Your task to perform on an android device: open app "Instagram" Image 0: 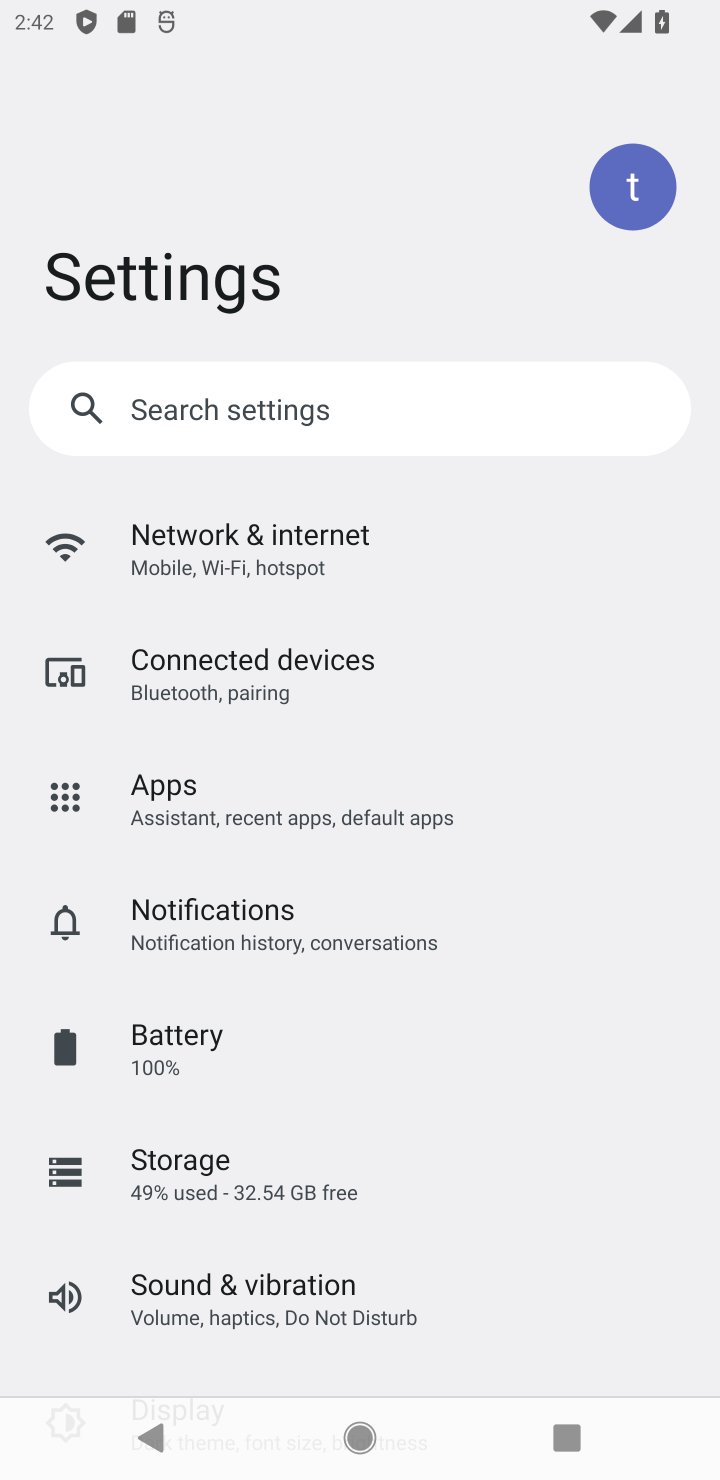
Step 0: press home button
Your task to perform on an android device: open app "Instagram" Image 1: 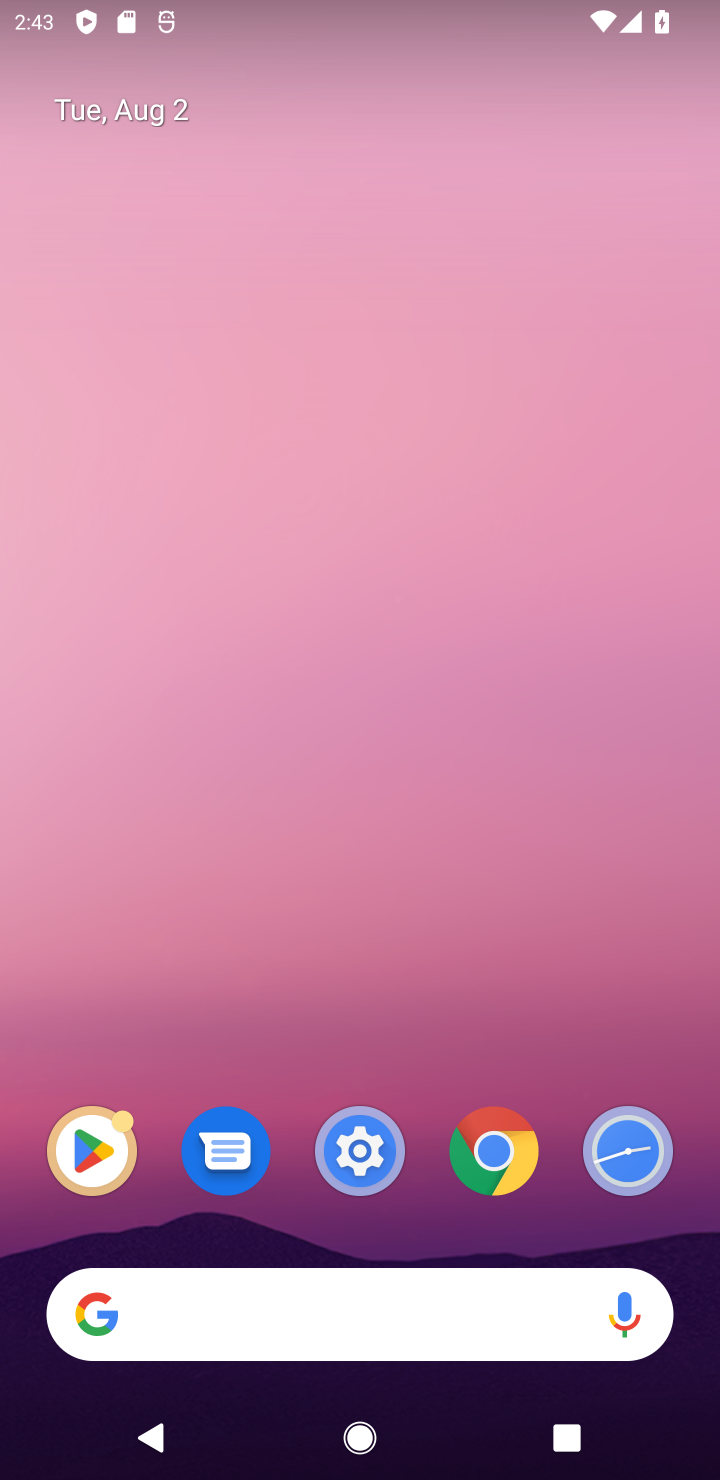
Step 1: drag from (417, 1455) to (325, 37)
Your task to perform on an android device: open app "Instagram" Image 2: 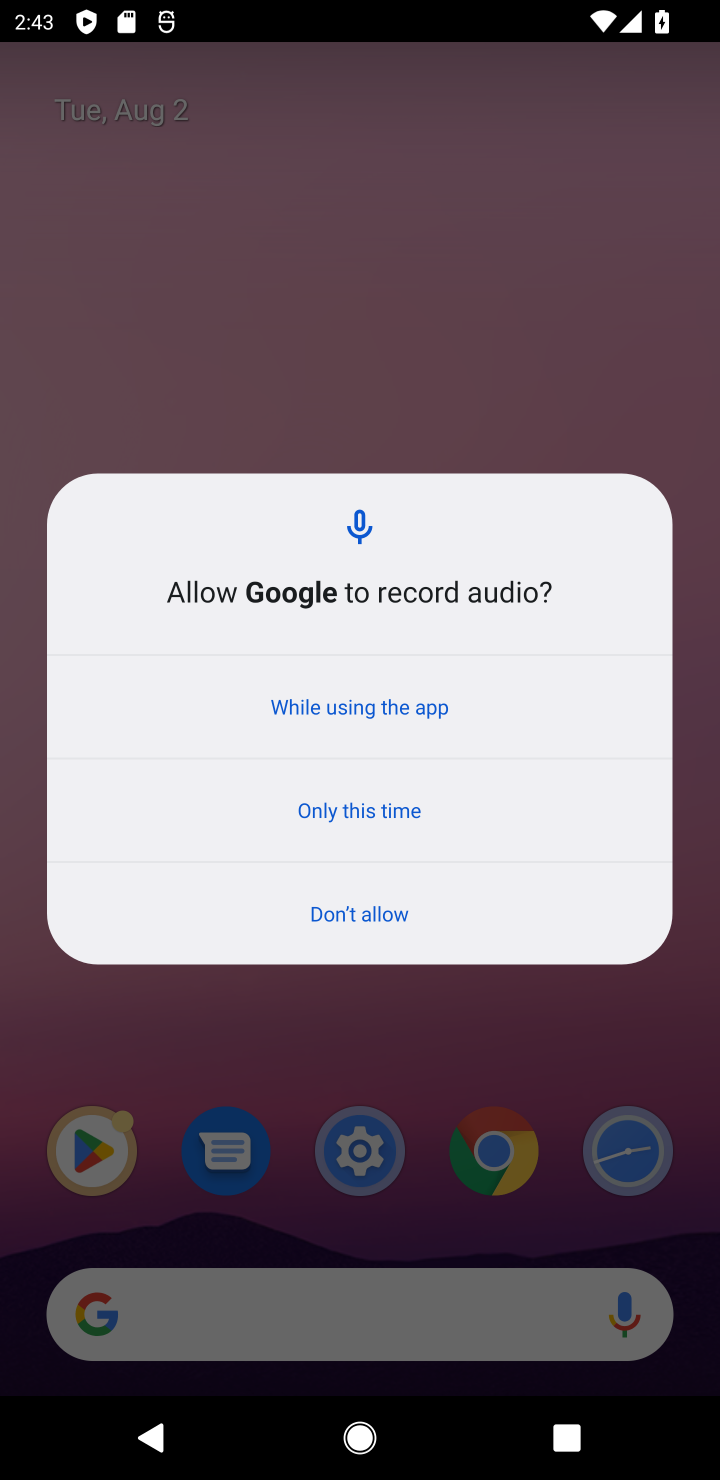
Step 2: click (535, 1059)
Your task to perform on an android device: open app "Instagram" Image 3: 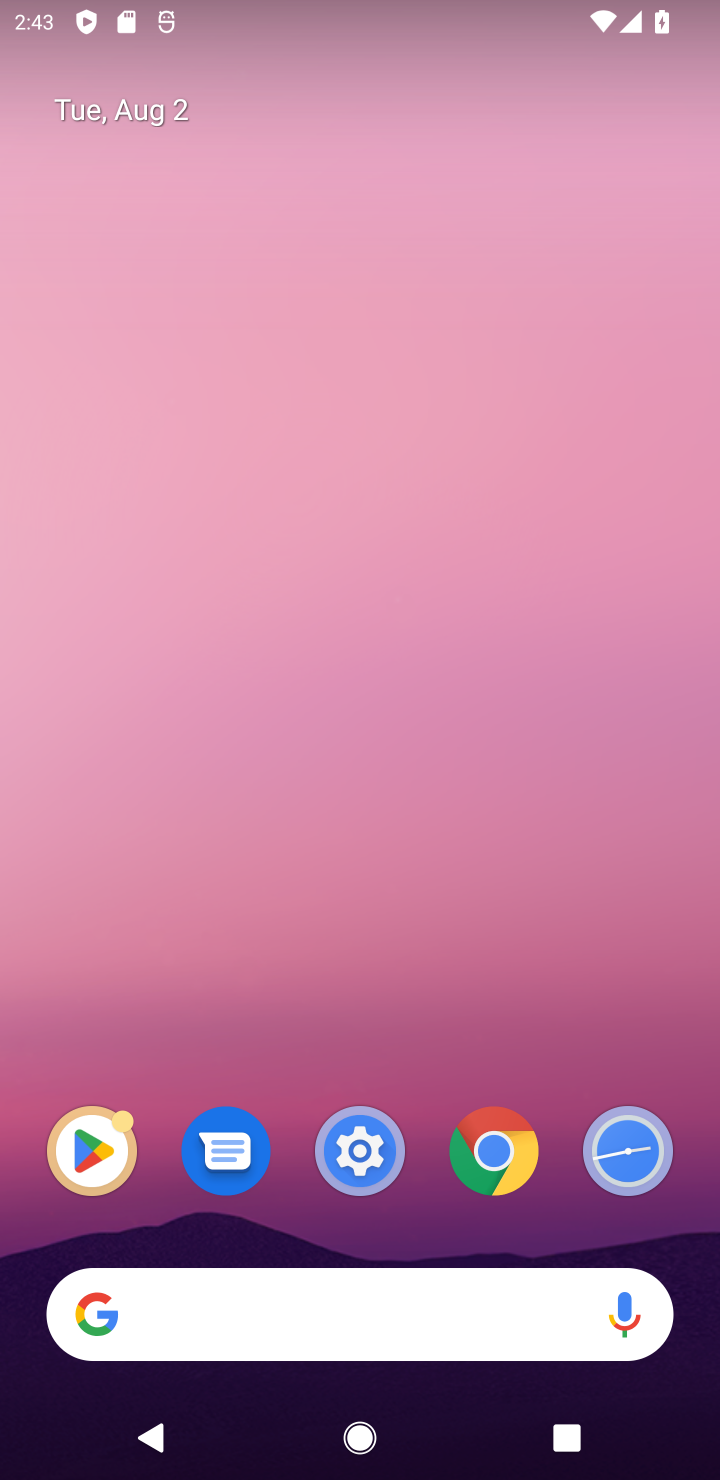
Step 3: drag from (426, 1181) to (431, 558)
Your task to perform on an android device: open app "Instagram" Image 4: 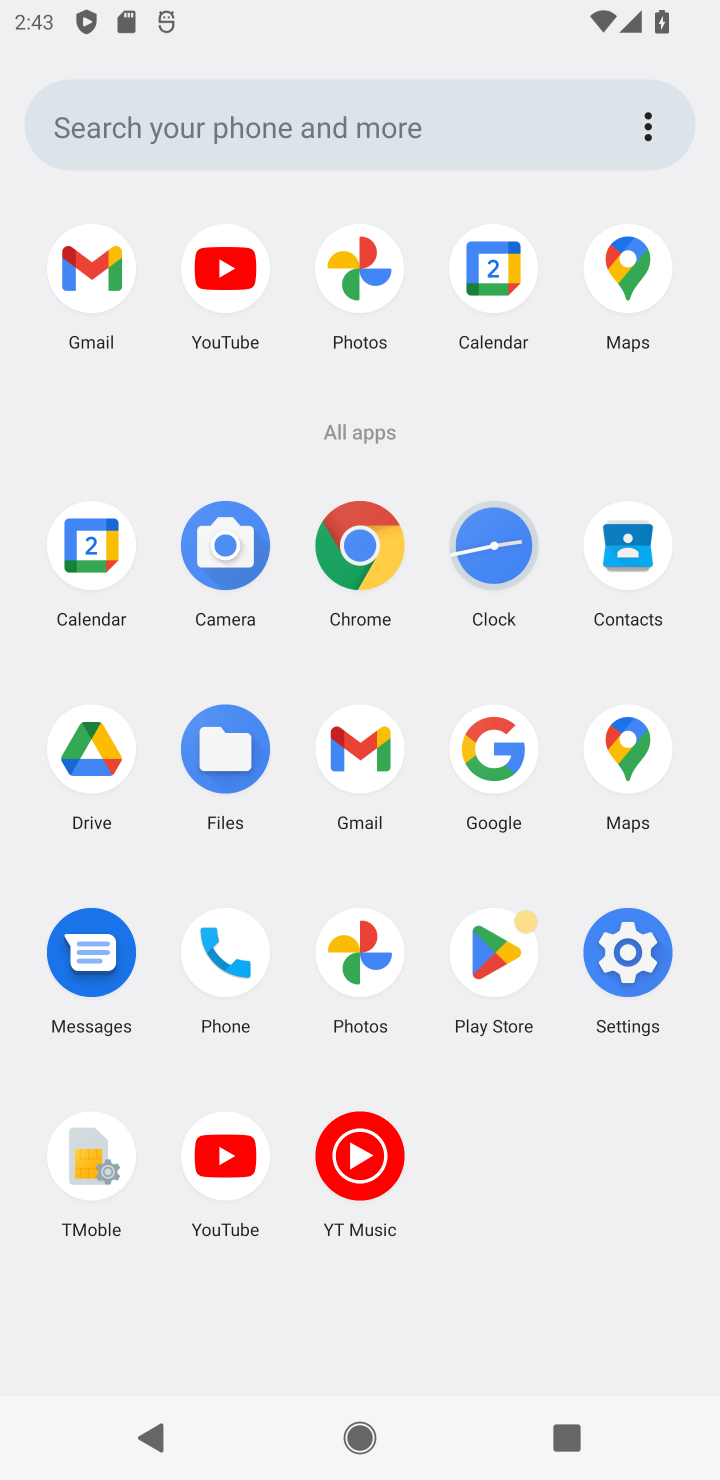
Step 4: click (496, 959)
Your task to perform on an android device: open app "Instagram" Image 5: 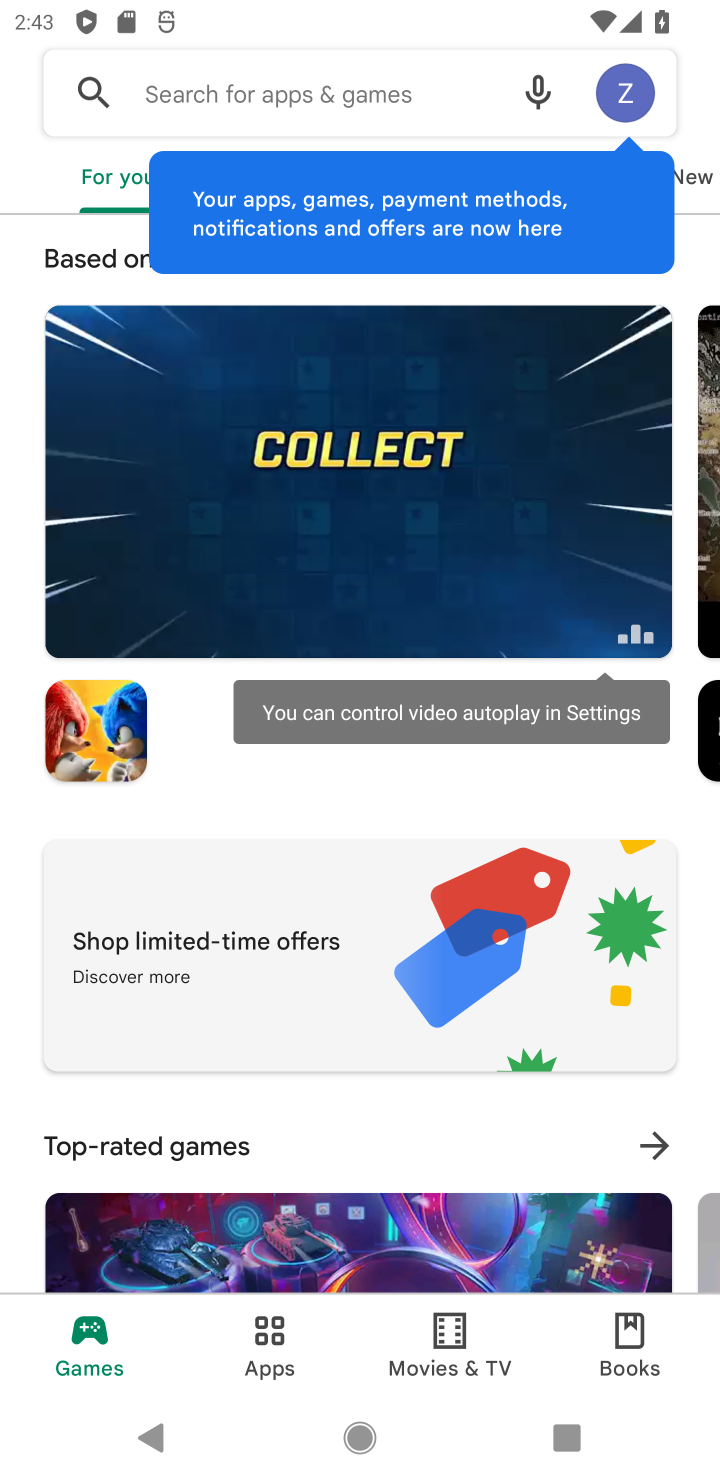
Step 5: click (284, 83)
Your task to perform on an android device: open app "Instagram" Image 6: 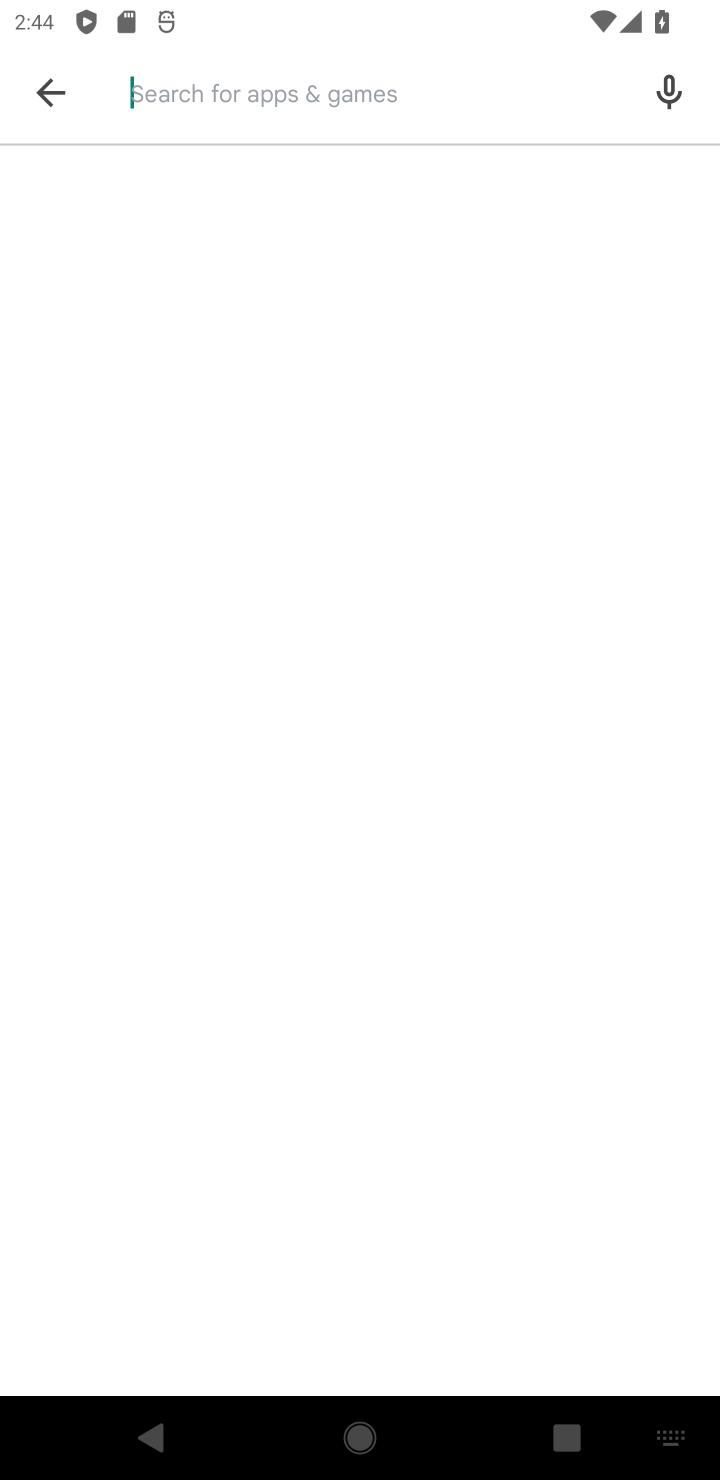
Step 6: type "Instagram"
Your task to perform on an android device: open app "Instagram" Image 7: 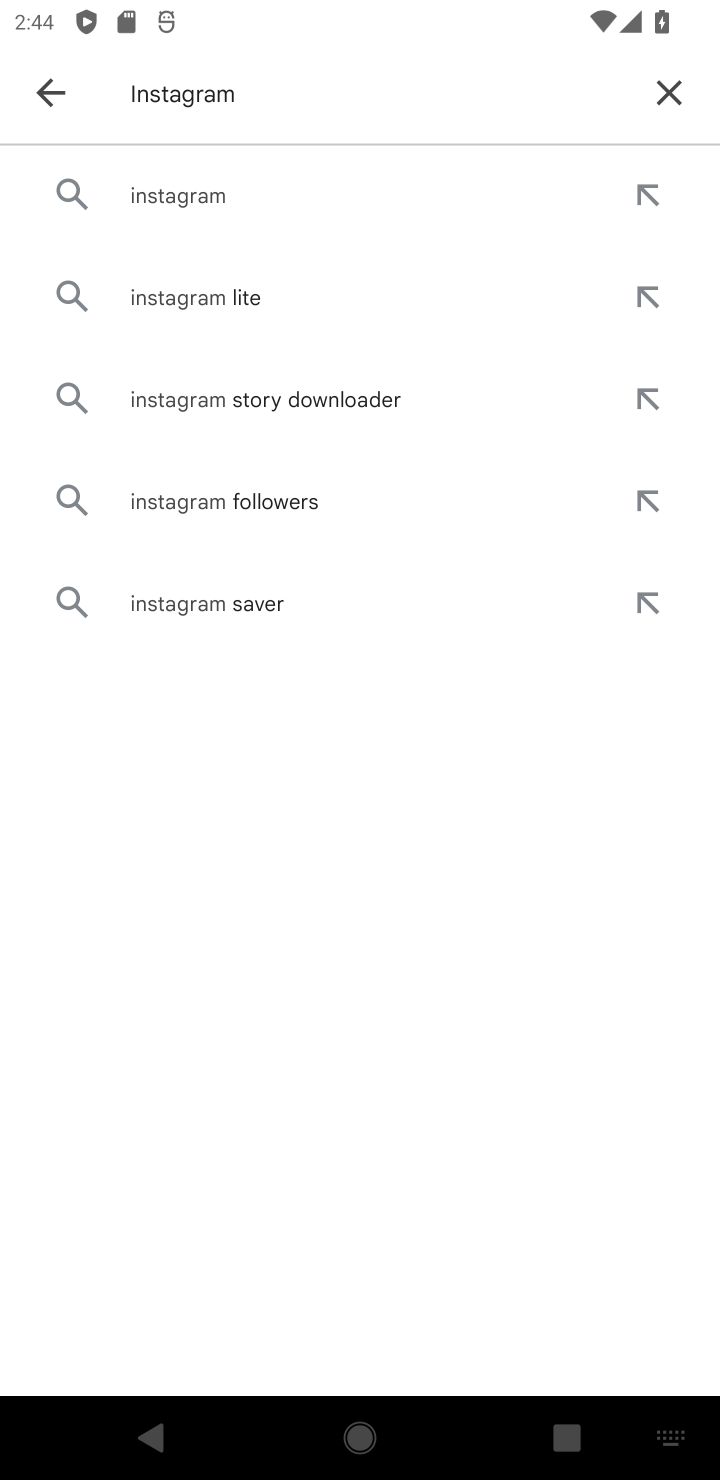
Step 7: click (187, 192)
Your task to perform on an android device: open app "Instagram" Image 8: 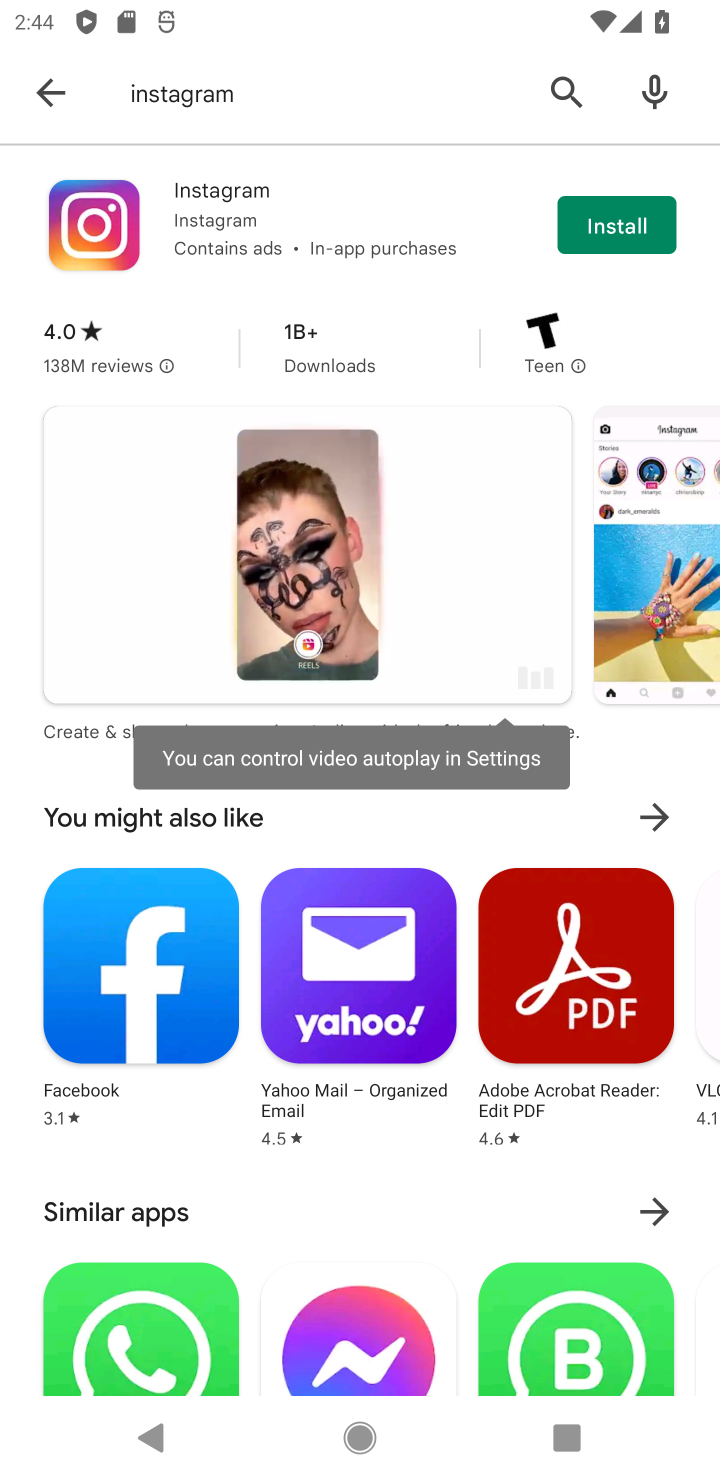
Step 8: task complete